Your task to perform on an android device: change the clock display to analog Image 0: 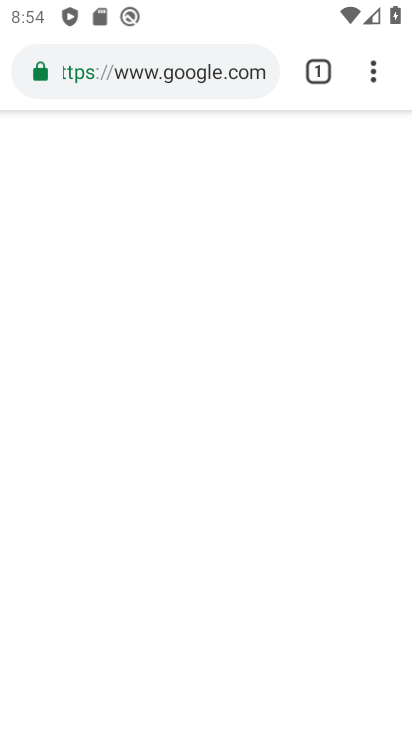
Step 0: press home button
Your task to perform on an android device: change the clock display to analog Image 1: 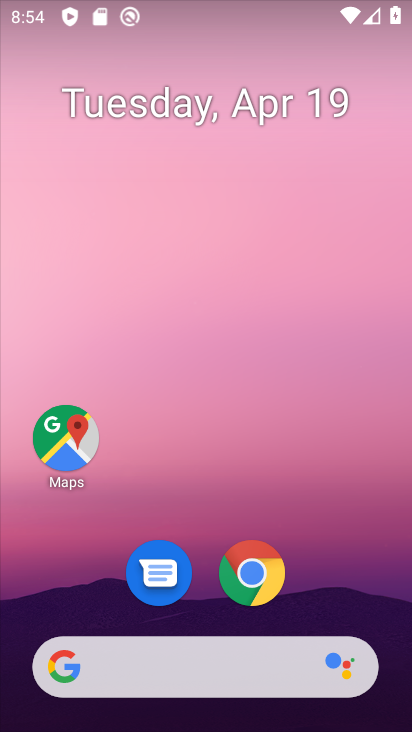
Step 1: drag from (188, 513) to (165, 44)
Your task to perform on an android device: change the clock display to analog Image 2: 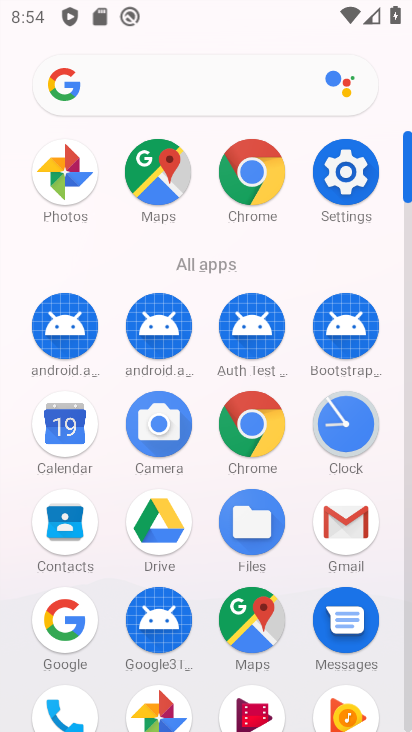
Step 2: click (347, 433)
Your task to perform on an android device: change the clock display to analog Image 3: 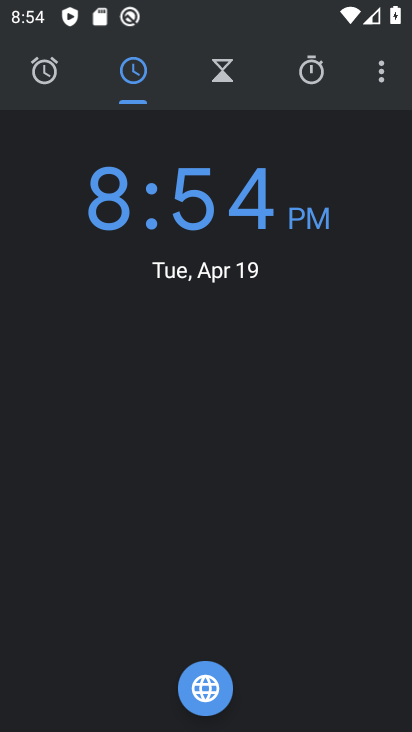
Step 3: click (379, 72)
Your task to perform on an android device: change the clock display to analog Image 4: 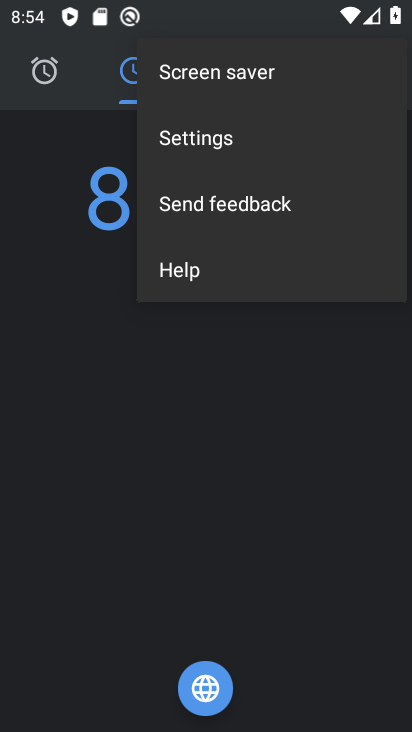
Step 4: click (263, 140)
Your task to perform on an android device: change the clock display to analog Image 5: 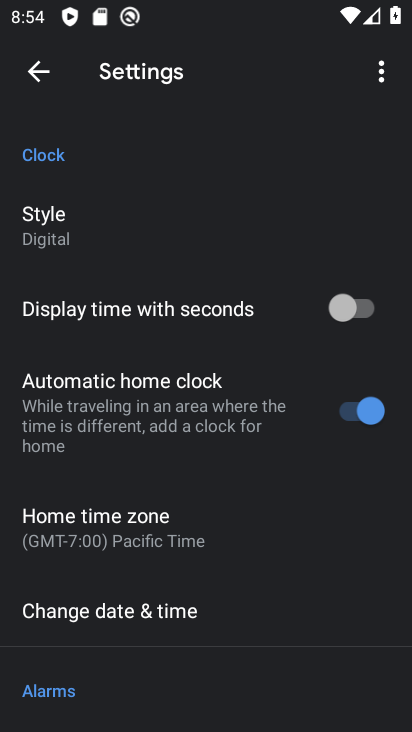
Step 5: click (171, 222)
Your task to perform on an android device: change the clock display to analog Image 6: 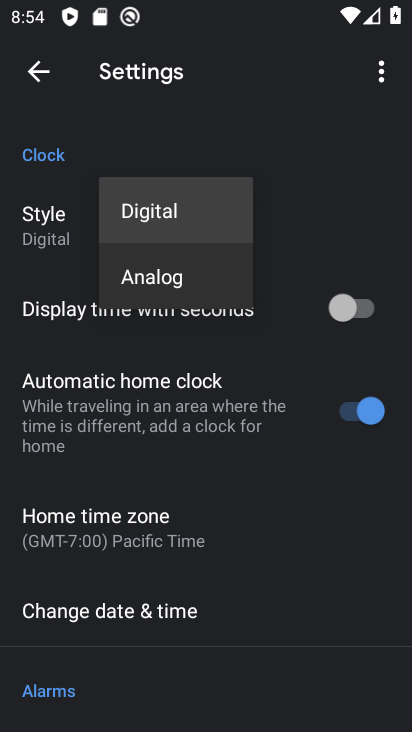
Step 6: click (163, 268)
Your task to perform on an android device: change the clock display to analog Image 7: 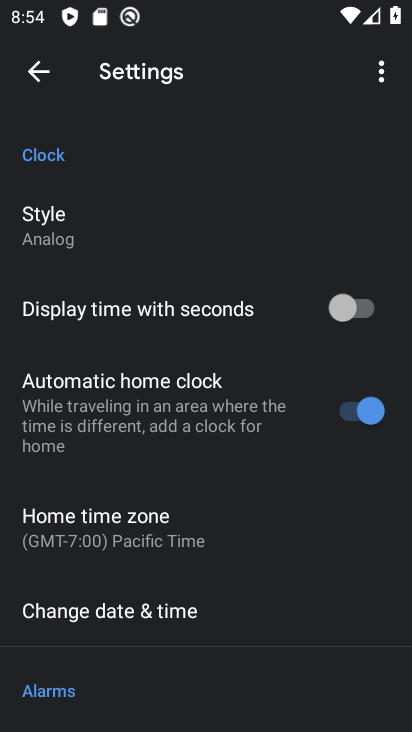
Step 7: task complete